Your task to perform on an android device: open app "Microsoft Outlook" (install if not already installed), go to login, and select forgot password Image 0: 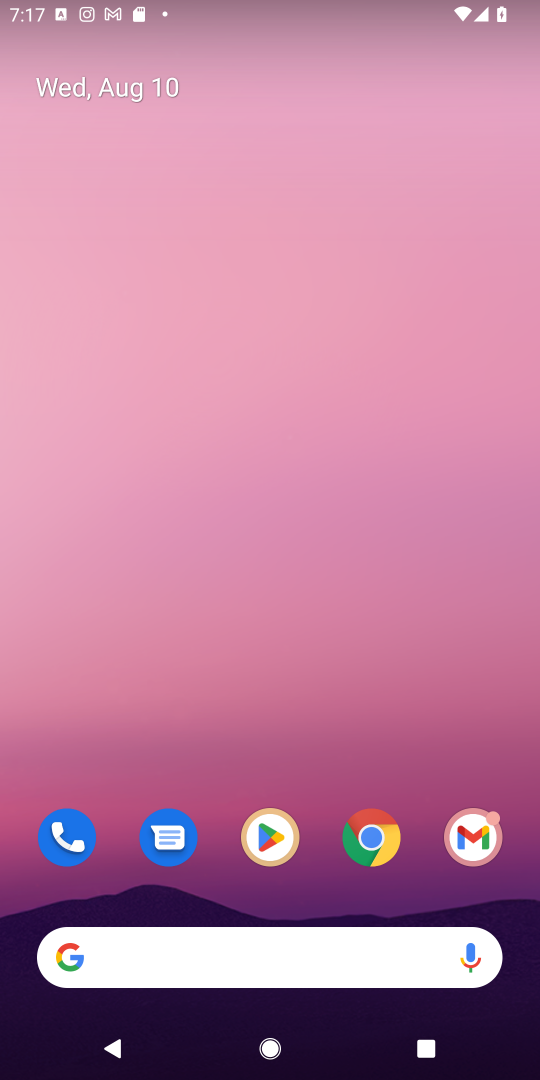
Step 0: click (270, 833)
Your task to perform on an android device: open app "Microsoft Outlook" (install if not already installed), go to login, and select forgot password Image 1: 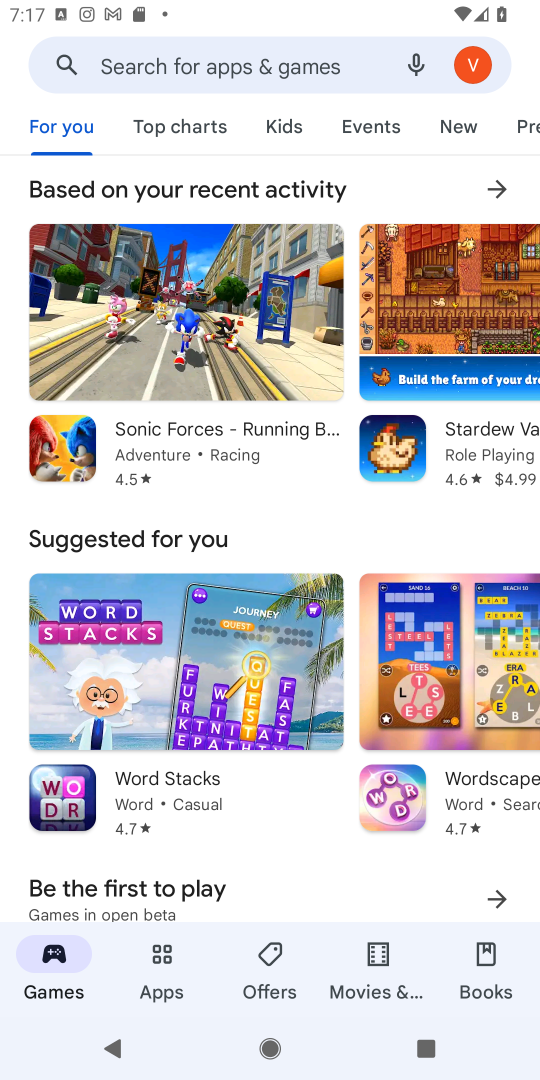
Step 1: click (314, 67)
Your task to perform on an android device: open app "Microsoft Outlook" (install if not already installed), go to login, and select forgot password Image 2: 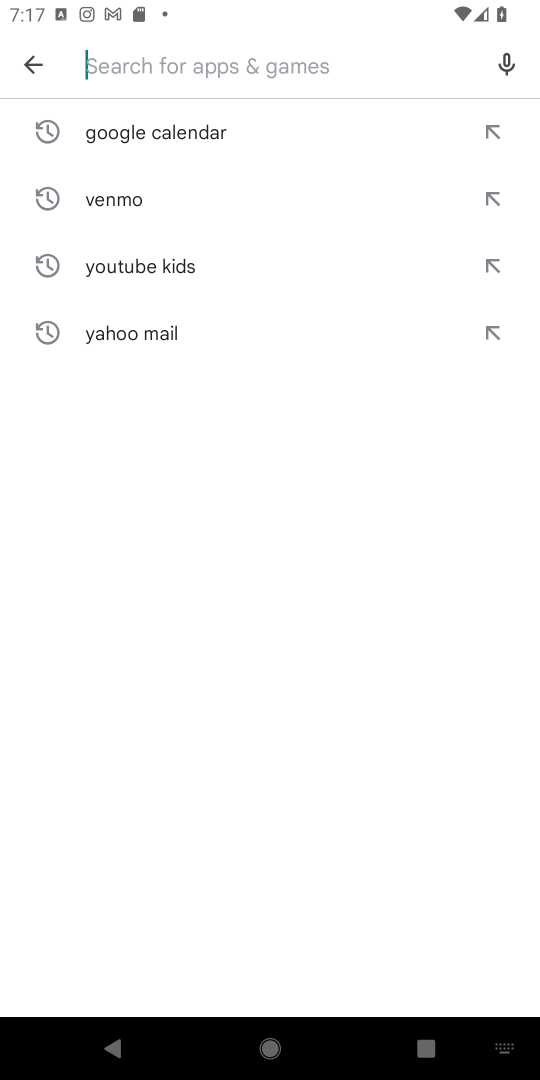
Step 2: type "Microsoft Outlook"
Your task to perform on an android device: open app "Microsoft Outlook" (install if not already installed), go to login, and select forgot password Image 3: 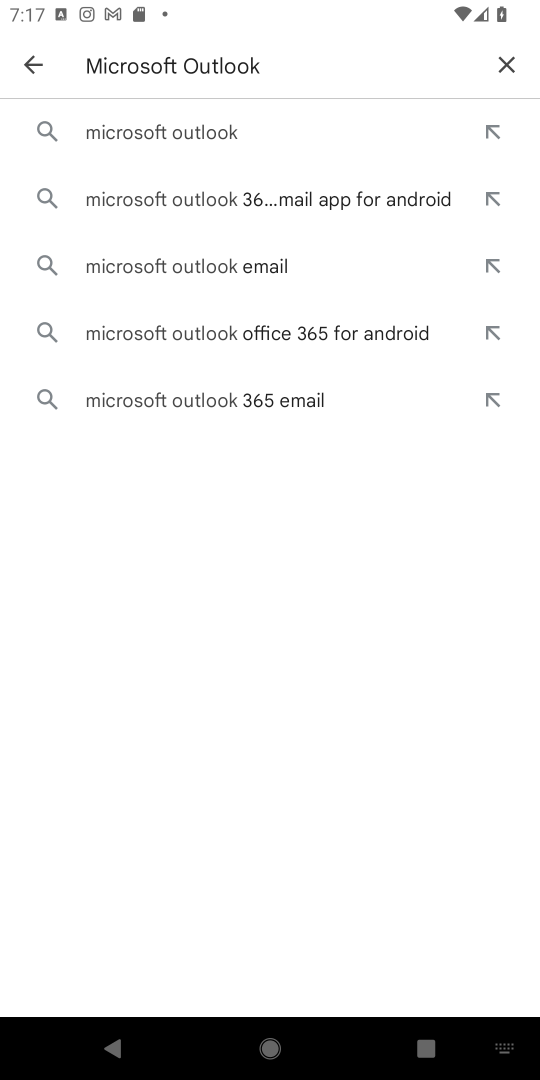
Step 3: click (116, 132)
Your task to perform on an android device: open app "Microsoft Outlook" (install if not already installed), go to login, and select forgot password Image 4: 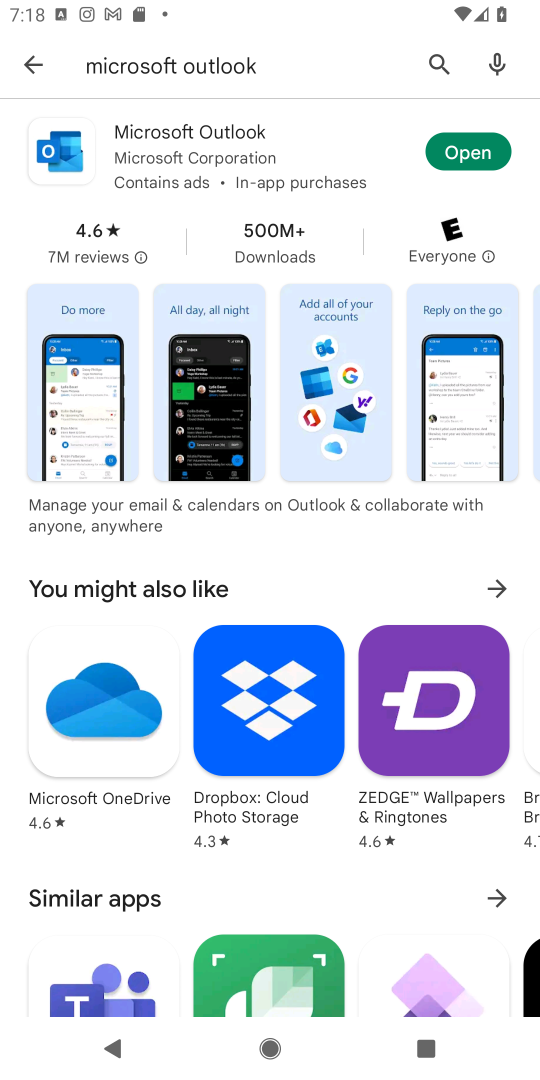
Step 4: click (485, 157)
Your task to perform on an android device: open app "Microsoft Outlook" (install if not already installed), go to login, and select forgot password Image 5: 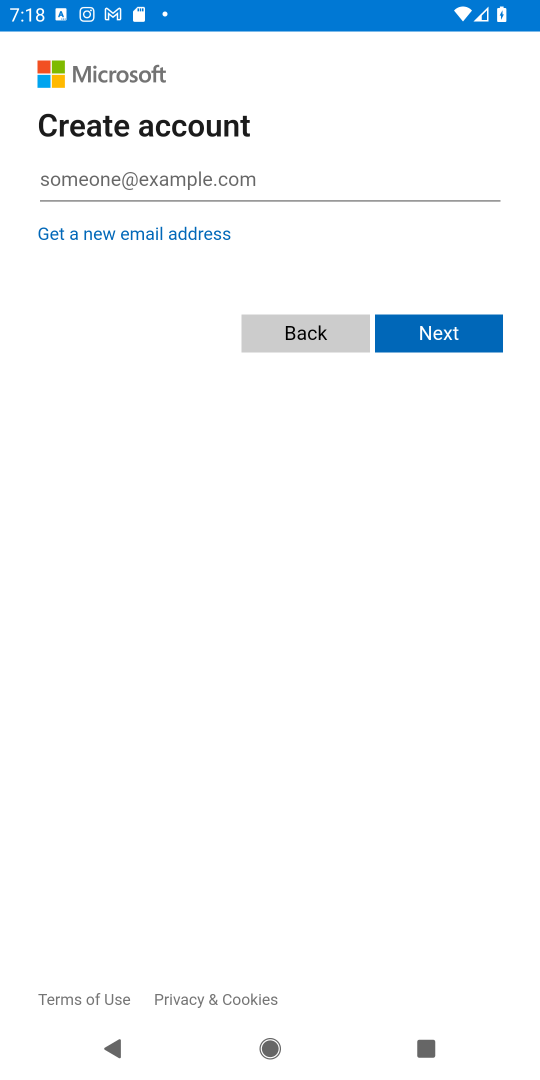
Step 5: task complete